Your task to perform on an android device: Open accessibility settings Image 0: 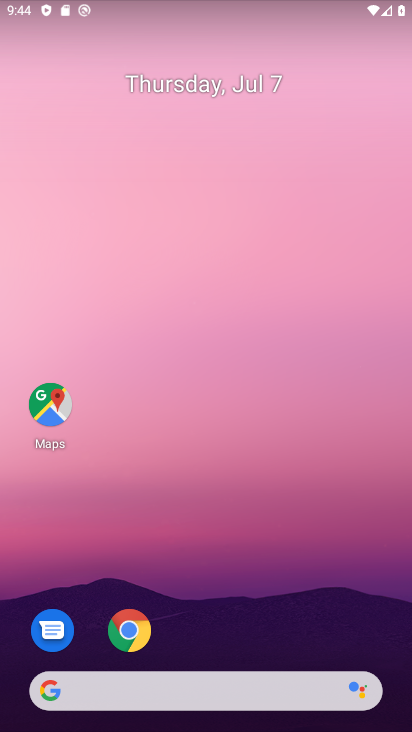
Step 0: press home button
Your task to perform on an android device: Open accessibility settings Image 1: 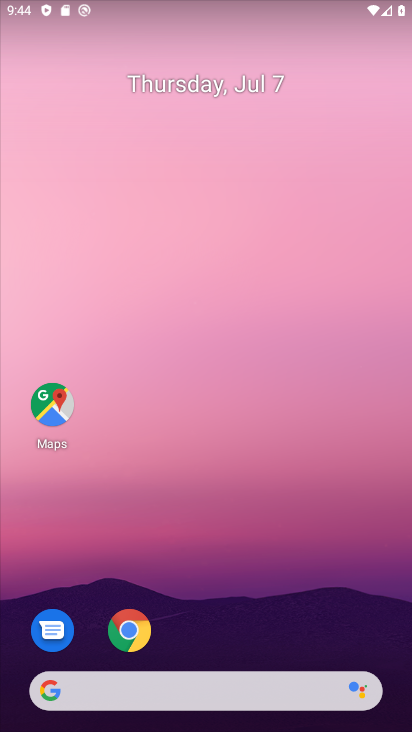
Step 1: drag from (214, 451) to (218, 44)
Your task to perform on an android device: Open accessibility settings Image 2: 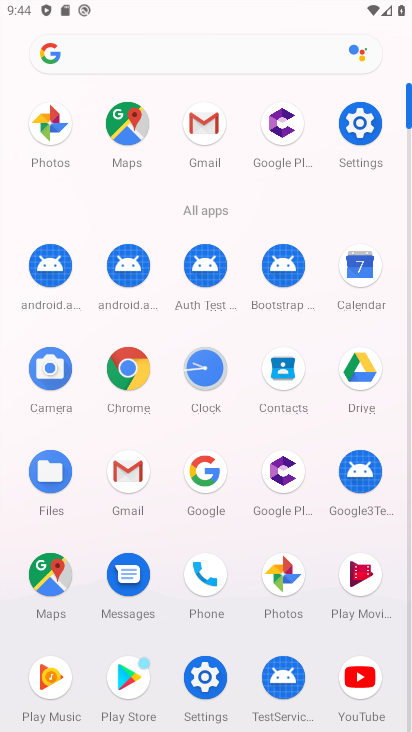
Step 2: click (357, 113)
Your task to perform on an android device: Open accessibility settings Image 3: 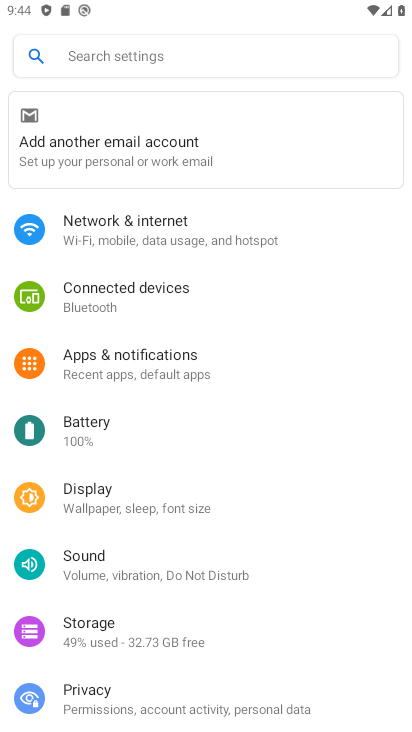
Step 3: drag from (187, 647) to (219, 125)
Your task to perform on an android device: Open accessibility settings Image 4: 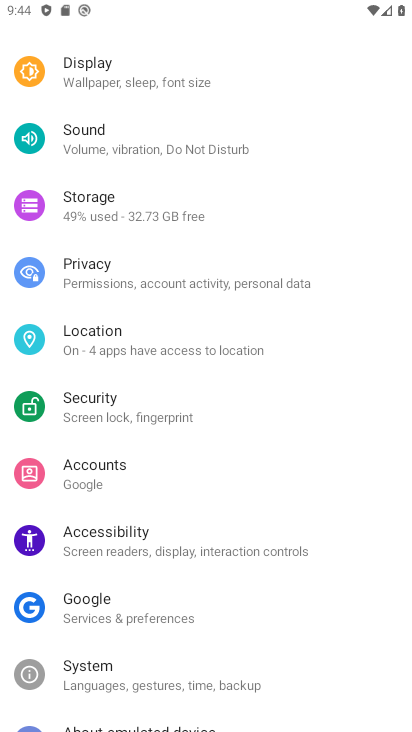
Step 4: click (164, 527)
Your task to perform on an android device: Open accessibility settings Image 5: 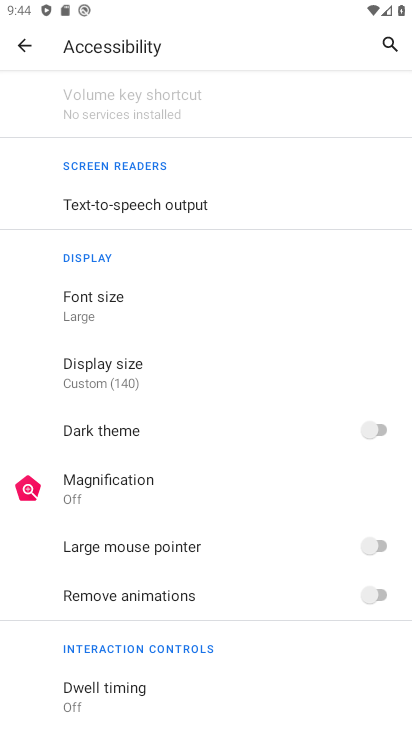
Step 5: task complete